Your task to perform on an android device: check data usage Image 0: 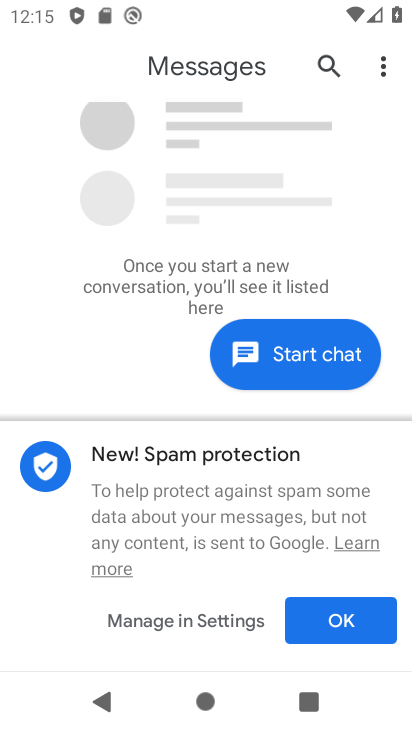
Step 0: press home button
Your task to perform on an android device: check data usage Image 1: 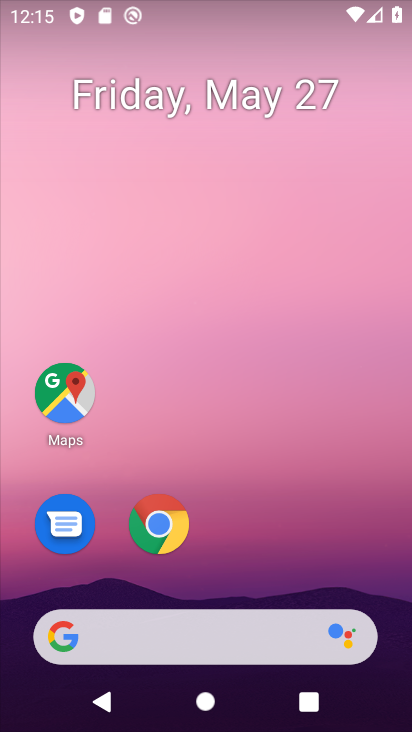
Step 1: drag from (247, 537) to (218, 21)
Your task to perform on an android device: check data usage Image 2: 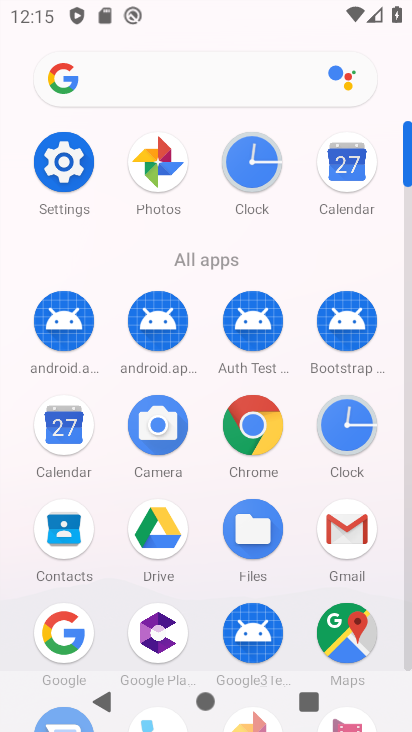
Step 2: click (63, 150)
Your task to perform on an android device: check data usage Image 3: 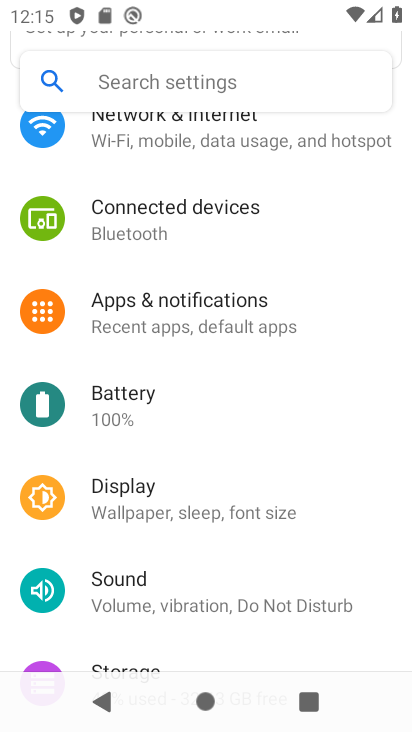
Step 3: drag from (213, 249) to (272, 486)
Your task to perform on an android device: check data usage Image 4: 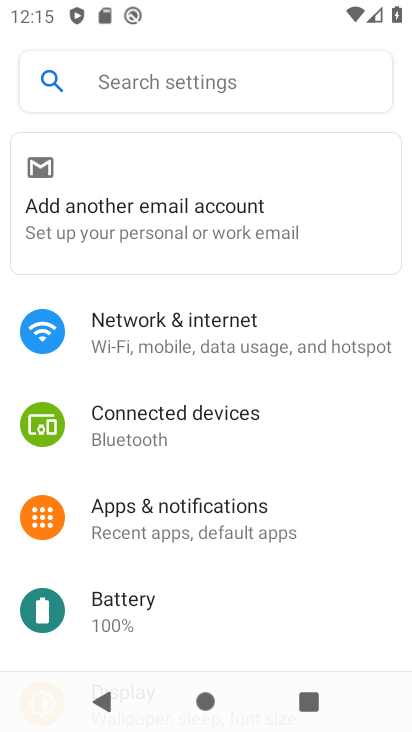
Step 4: click (250, 340)
Your task to perform on an android device: check data usage Image 5: 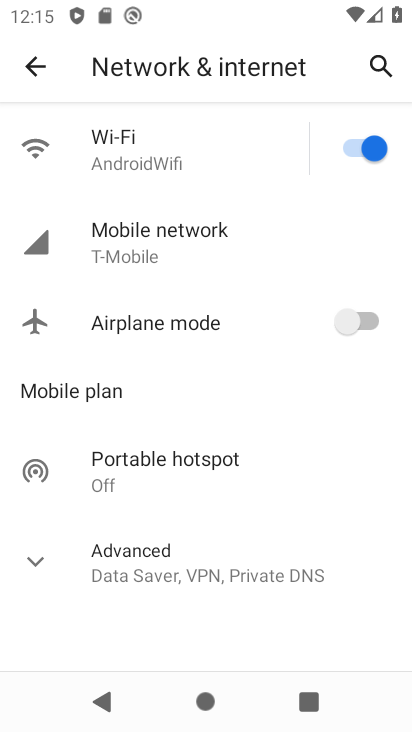
Step 5: click (188, 240)
Your task to perform on an android device: check data usage Image 6: 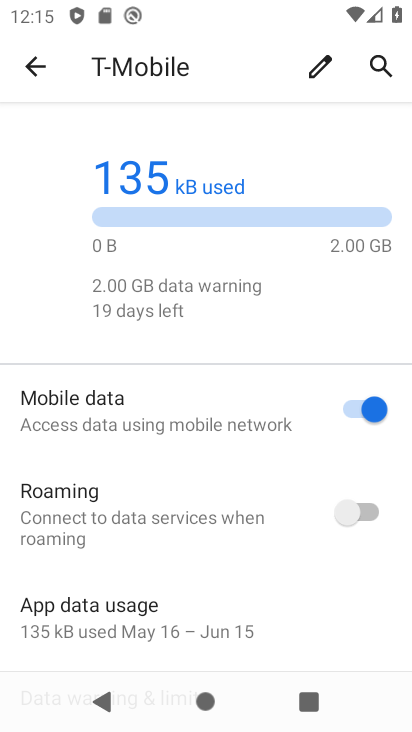
Step 6: task complete